Your task to perform on an android device: open chrome privacy settings Image 0: 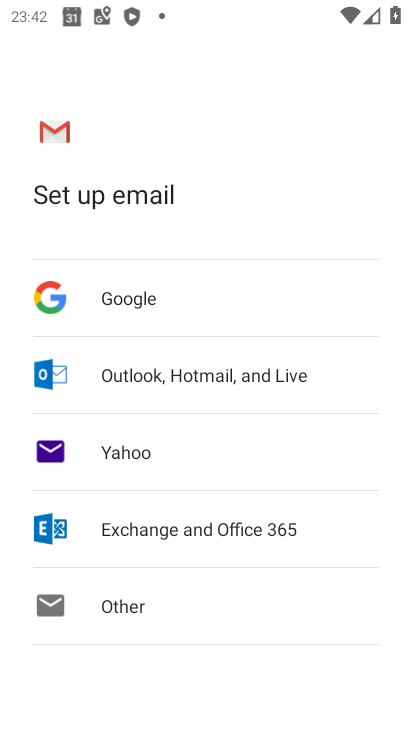
Step 0: press home button
Your task to perform on an android device: open chrome privacy settings Image 1: 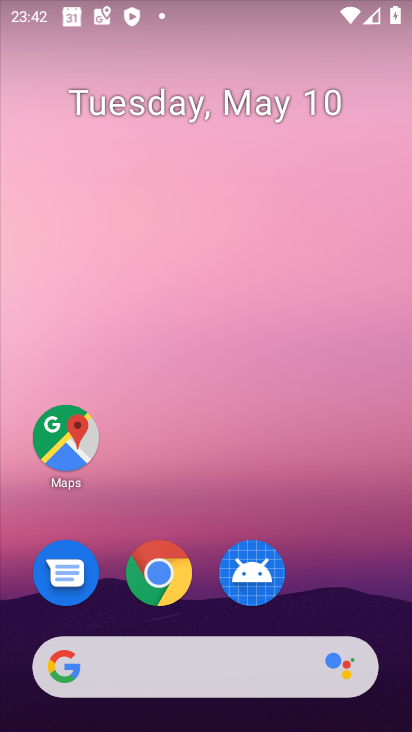
Step 1: click (155, 563)
Your task to perform on an android device: open chrome privacy settings Image 2: 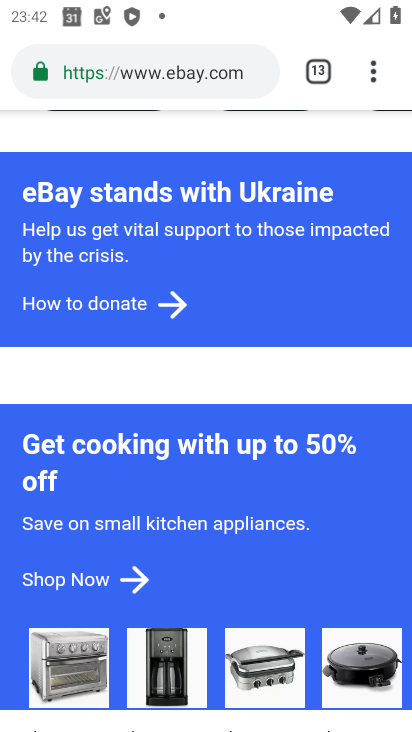
Step 2: click (374, 68)
Your task to perform on an android device: open chrome privacy settings Image 3: 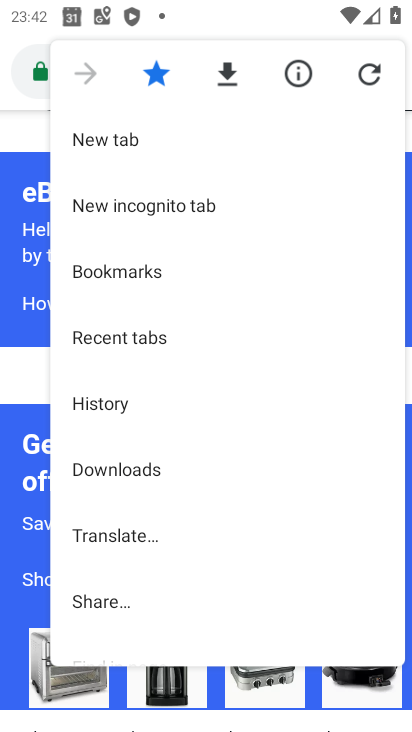
Step 3: drag from (229, 524) to (187, 150)
Your task to perform on an android device: open chrome privacy settings Image 4: 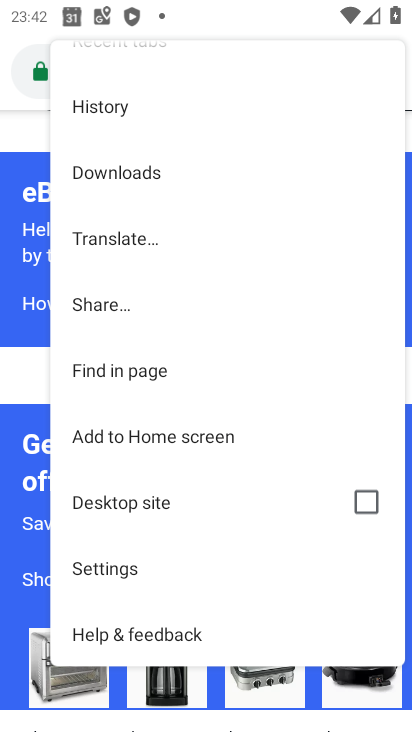
Step 4: click (114, 561)
Your task to perform on an android device: open chrome privacy settings Image 5: 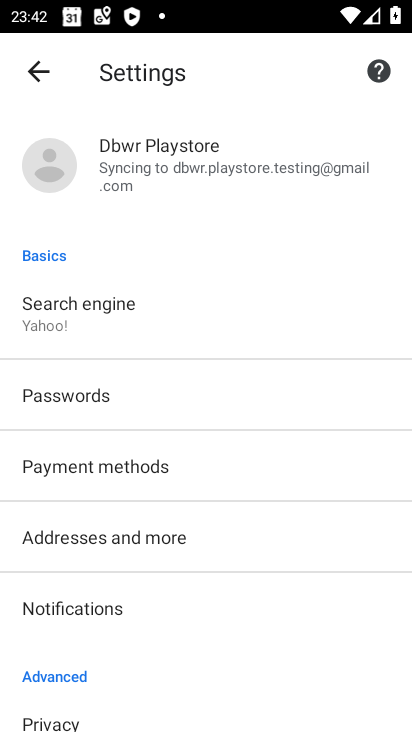
Step 5: drag from (265, 591) to (233, 424)
Your task to perform on an android device: open chrome privacy settings Image 6: 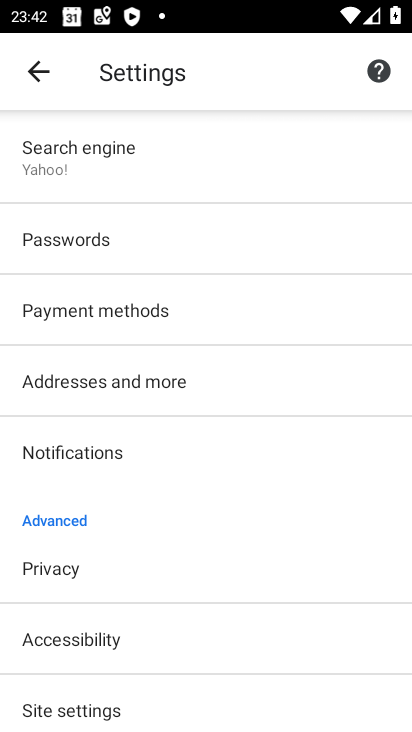
Step 6: click (61, 571)
Your task to perform on an android device: open chrome privacy settings Image 7: 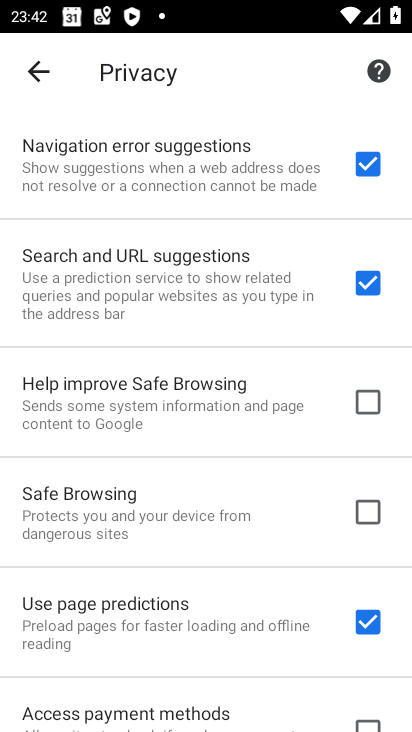
Step 7: task complete